Your task to perform on an android device: toggle javascript in the chrome app Image 0: 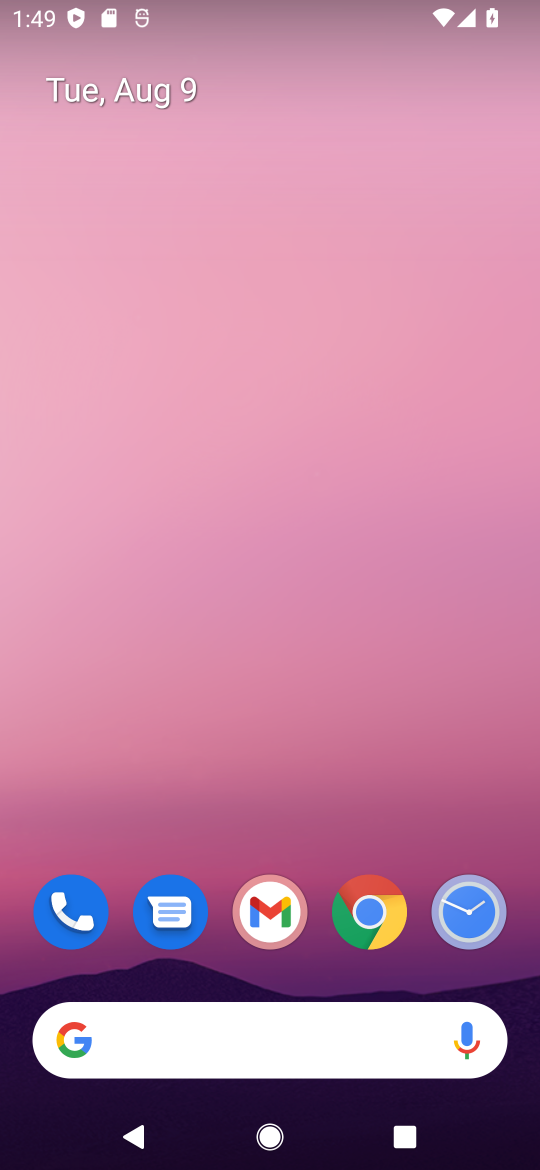
Step 0: click (359, 917)
Your task to perform on an android device: toggle javascript in the chrome app Image 1: 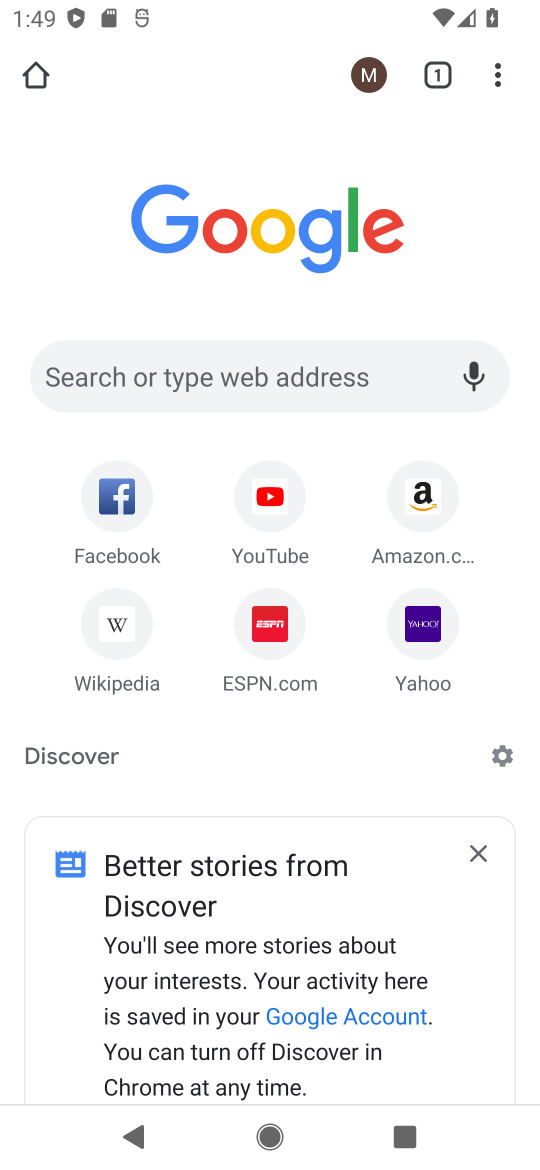
Step 1: click (499, 74)
Your task to perform on an android device: toggle javascript in the chrome app Image 2: 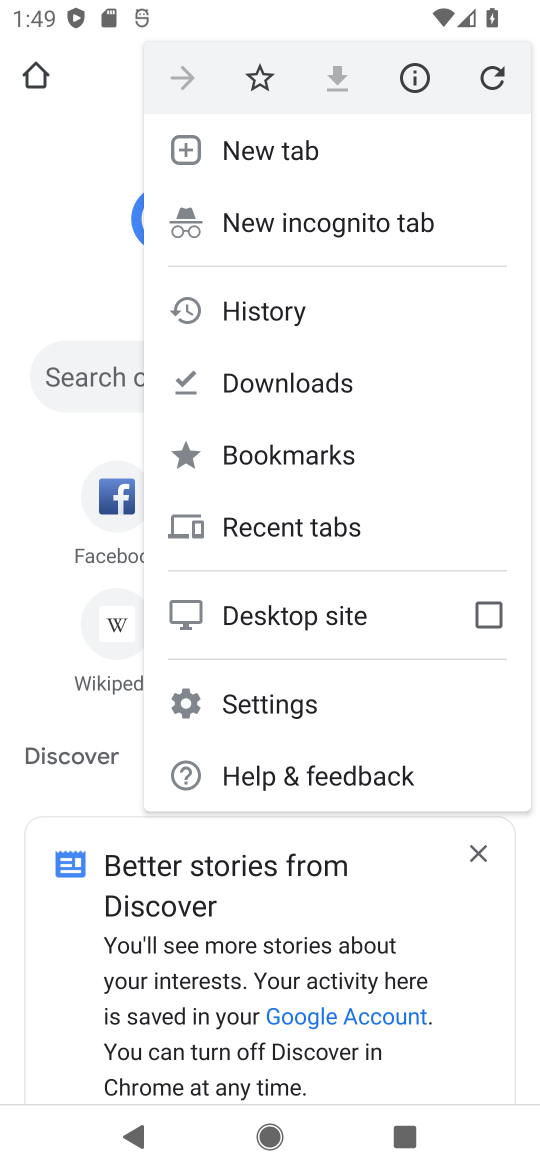
Step 2: click (272, 692)
Your task to perform on an android device: toggle javascript in the chrome app Image 3: 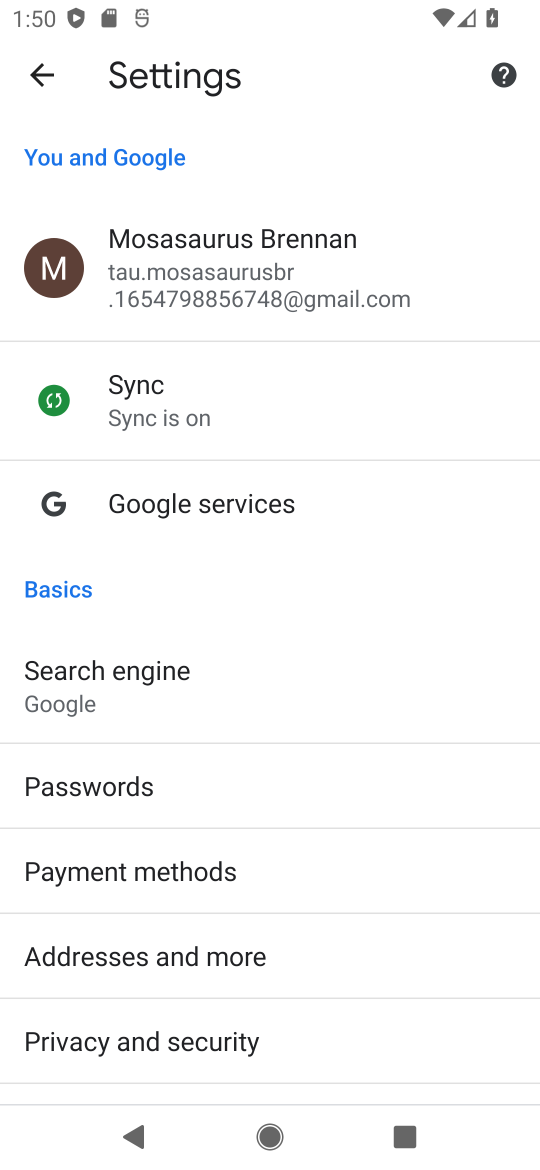
Step 3: drag from (316, 971) to (318, 353)
Your task to perform on an android device: toggle javascript in the chrome app Image 4: 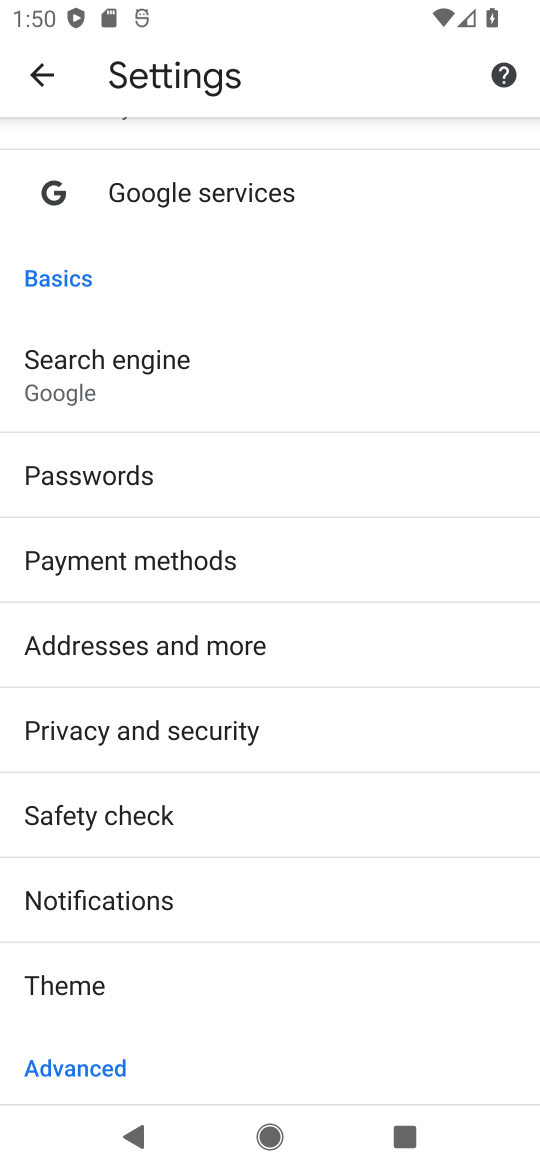
Step 4: drag from (264, 968) to (264, 315)
Your task to perform on an android device: toggle javascript in the chrome app Image 5: 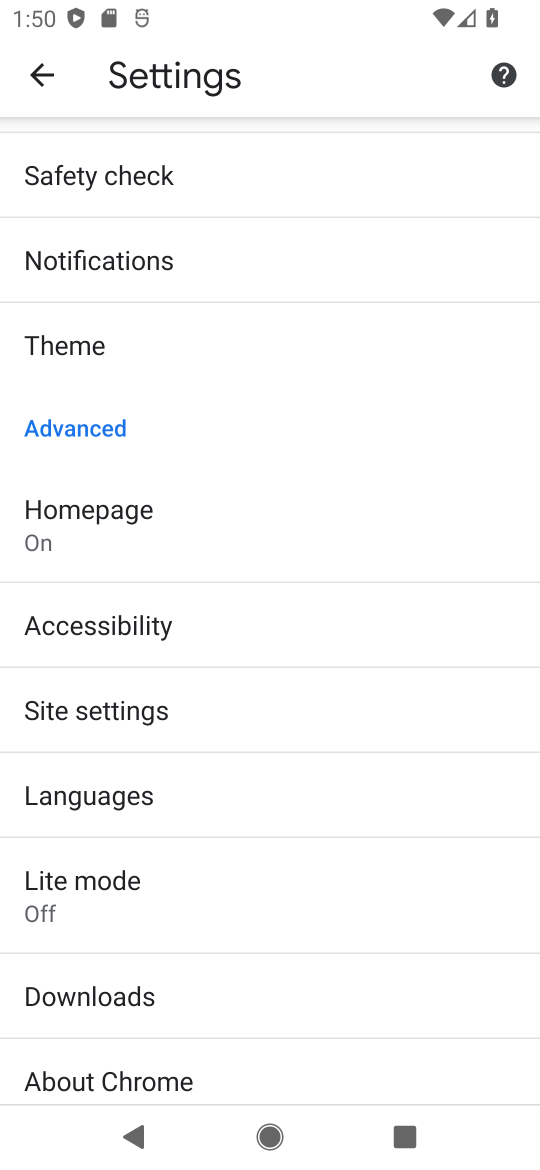
Step 5: drag from (281, 1032) to (247, 493)
Your task to perform on an android device: toggle javascript in the chrome app Image 6: 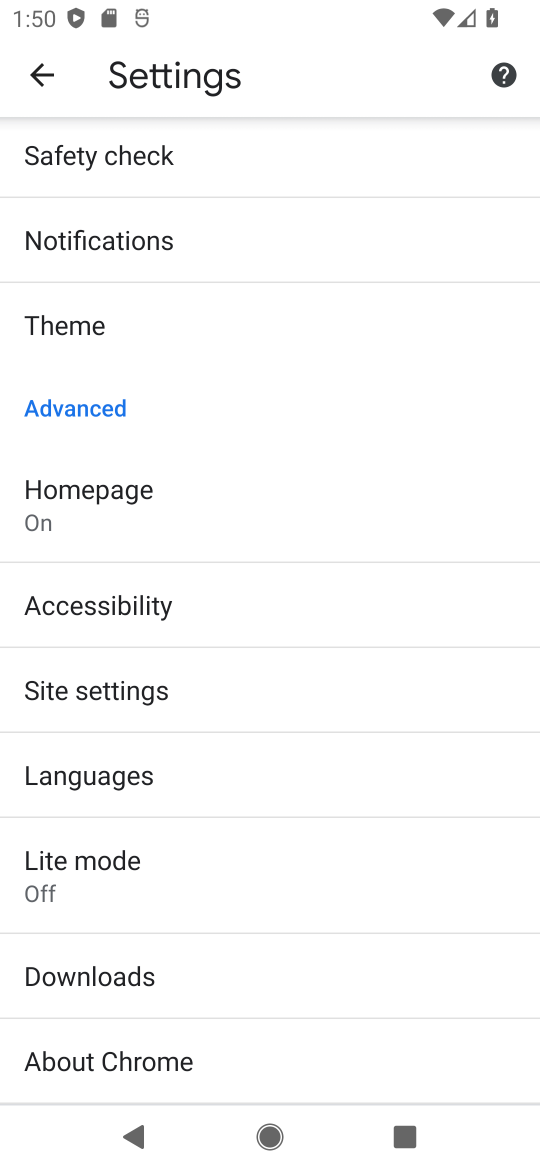
Step 6: click (122, 687)
Your task to perform on an android device: toggle javascript in the chrome app Image 7: 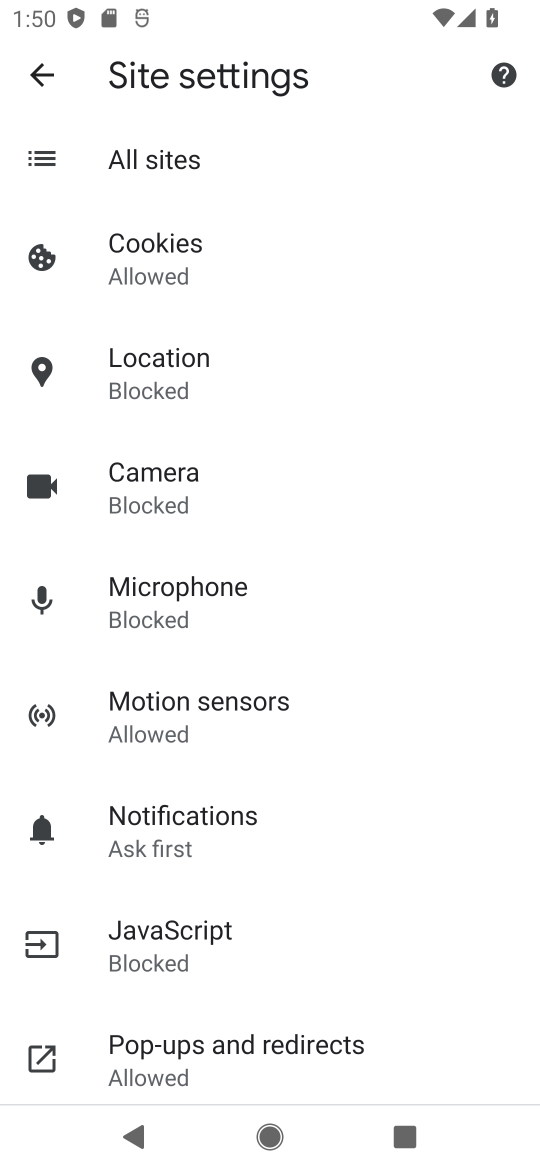
Step 7: click (195, 918)
Your task to perform on an android device: toggle javascript in the chrome app Image 8: 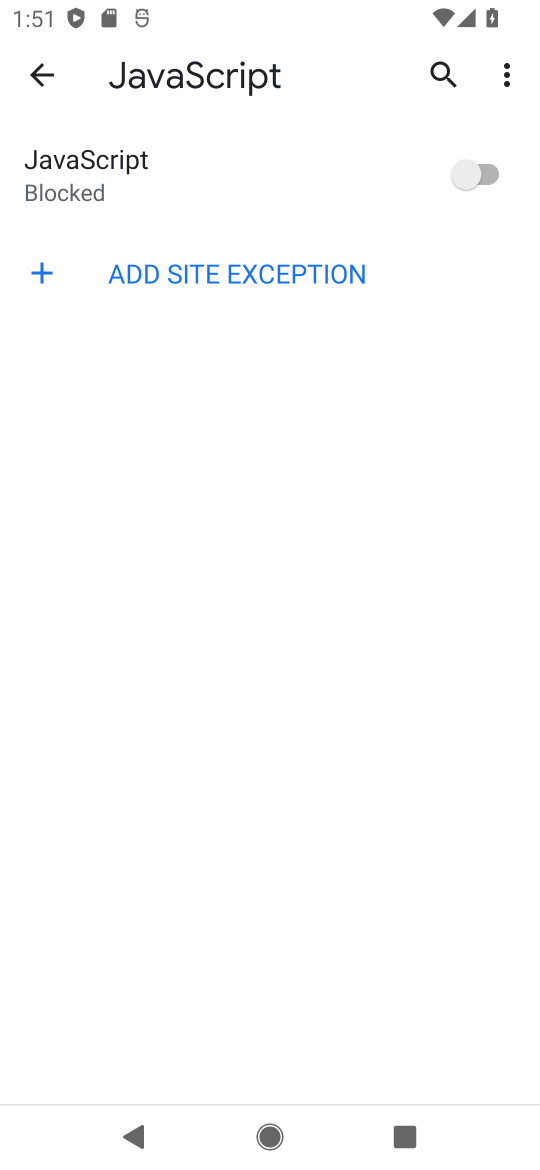
Step 8: click (459, 181)
Your task to perform on an android device: toggle javascript in the chrome app Image 9: 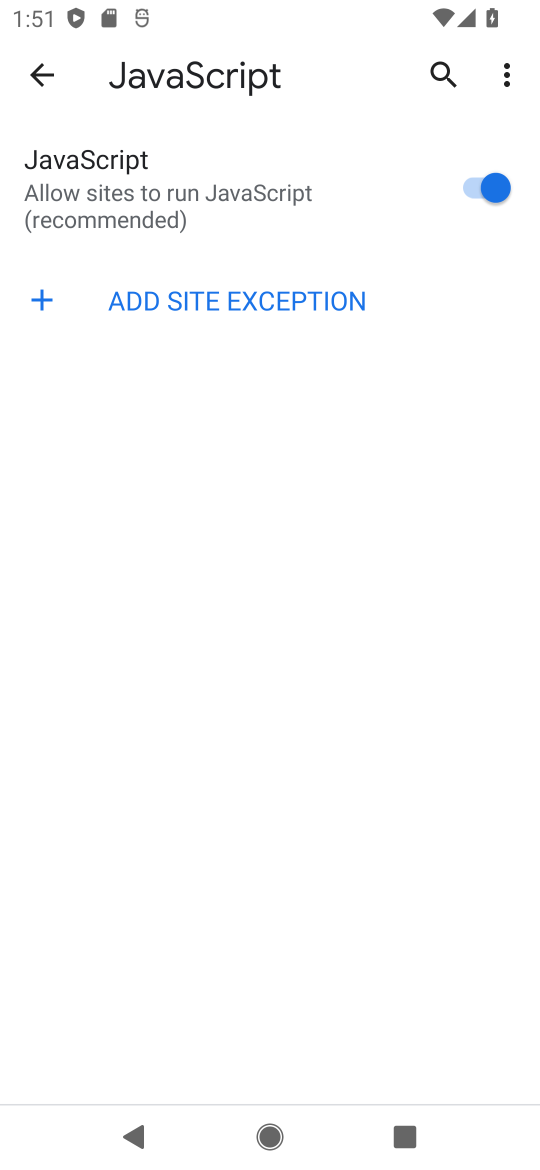
Step 9: task complete